Your task to perform on an android device: all mails in gmail Image 0: 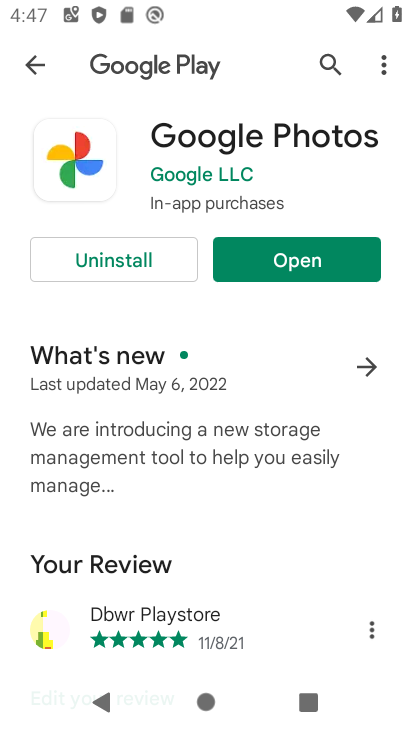
Step 0: click (351, 504)
Your task to perform on an android device: all mails in gmail Image 1: 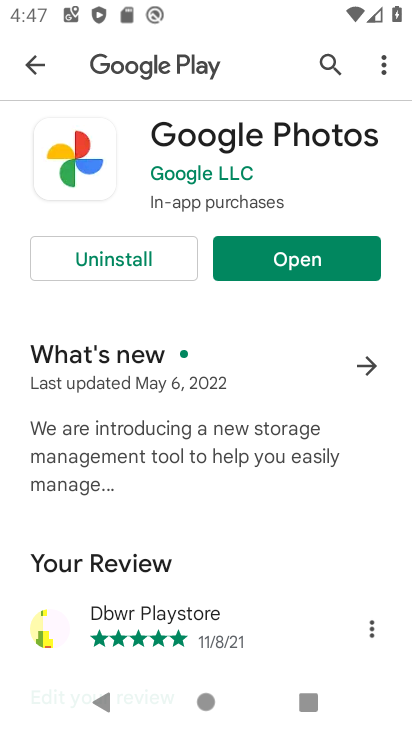
Step 1: press home button
Your task to perform on an android device: all mails in gmail Image 2: 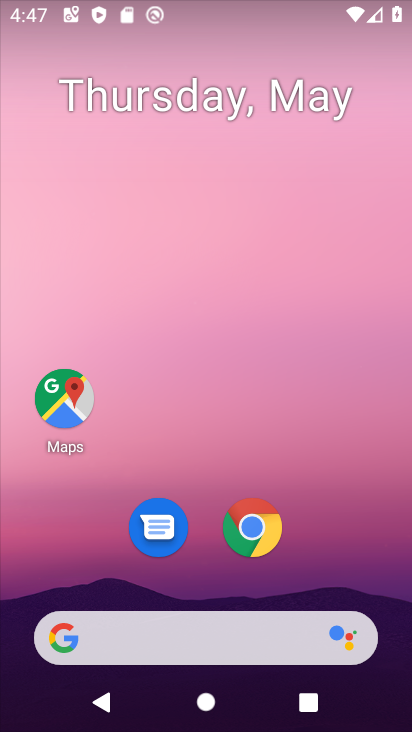
Step 2: drag from (386, 525) to (113, 99)
Your task to perform on an android device: all mails in gmail Image 3: 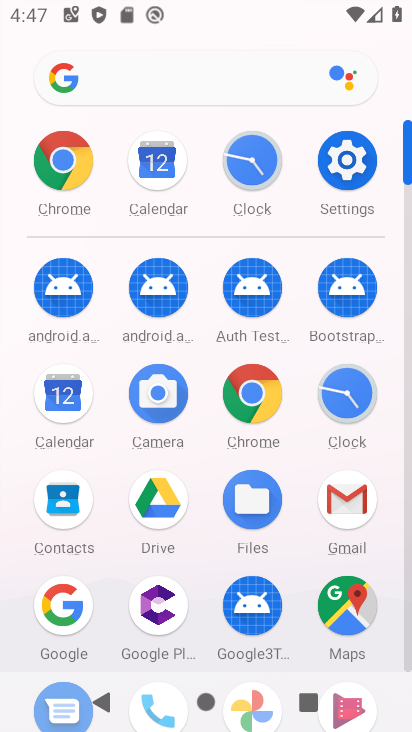
Step 3: click (366, 501)
Your task to perform on an android device: all mails in gmail Image 4: 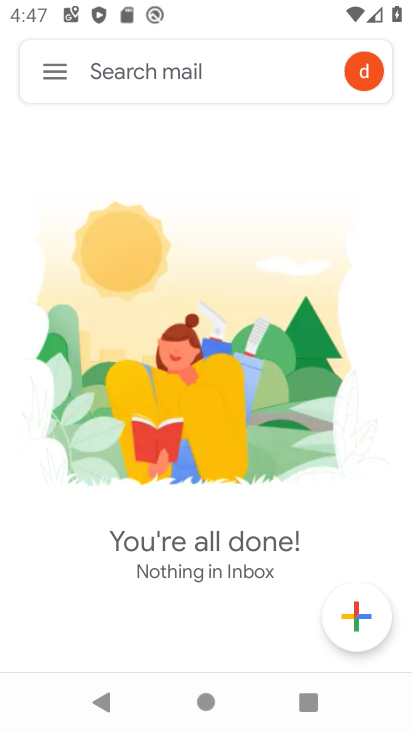
Step 4: click (36, 70)
Your task to perform on an android device: all mails in gmail Image 5: 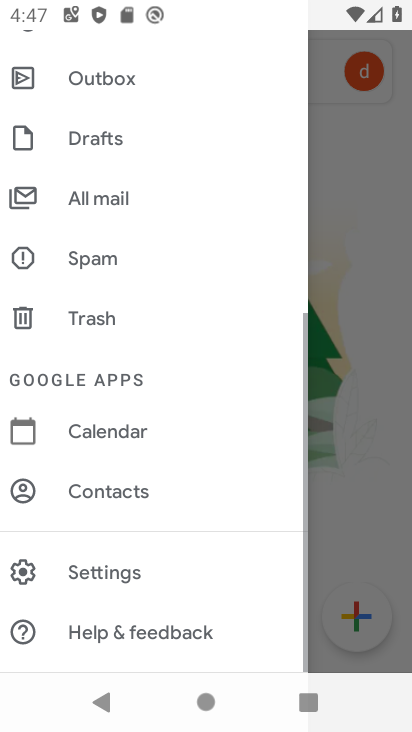
Step 5: drag from (38, 70) to (154, 192)
Your task to perform on an android device: all mails in gmail Image 6: 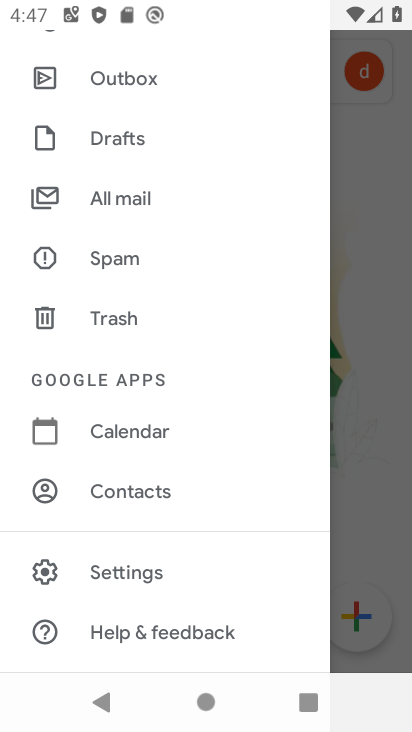
Step 6: click (139, 202)
Your task to perform on an android device: all mails in gmail Image 7: 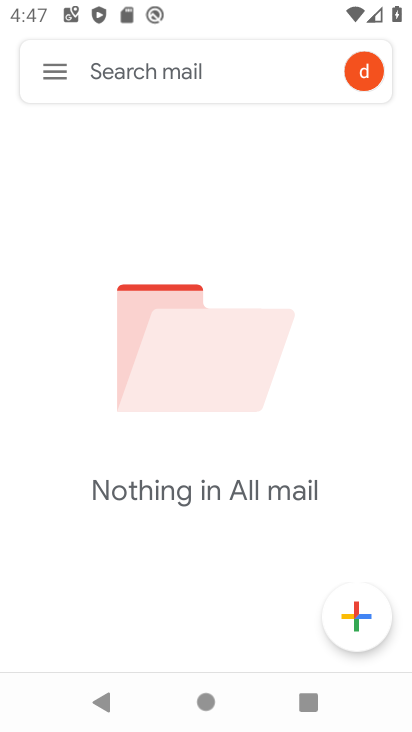
Step 7: task complete